Your task to perform on an android device: Show me recent news Image 0: 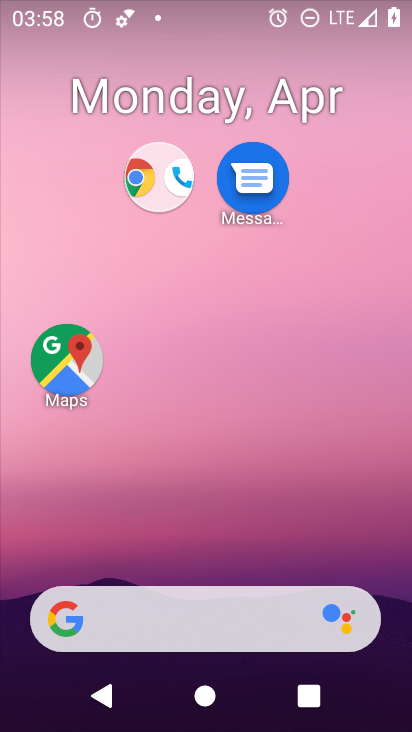
Step 0: drag from (312, 543) to (280, 1)
Your task to perform on an android device: Show me recent news Image 1: 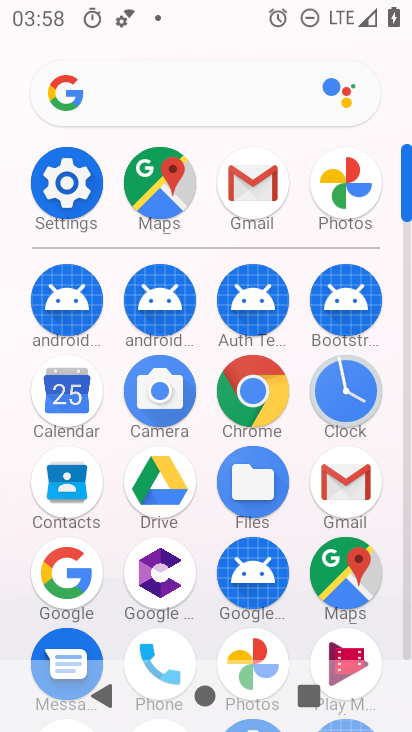
Step 1: click (261, 401)
Your task to perform on an android device: Show me recent news Image 2: 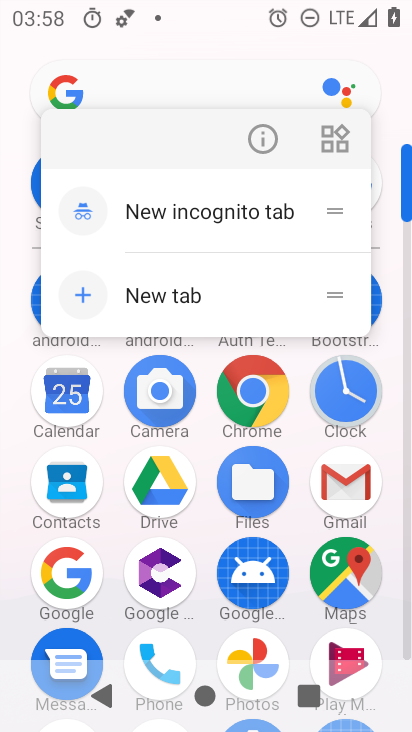
Step 2: click (410, 435)
Your task to perform on an android device: Show me recent news Image 3: 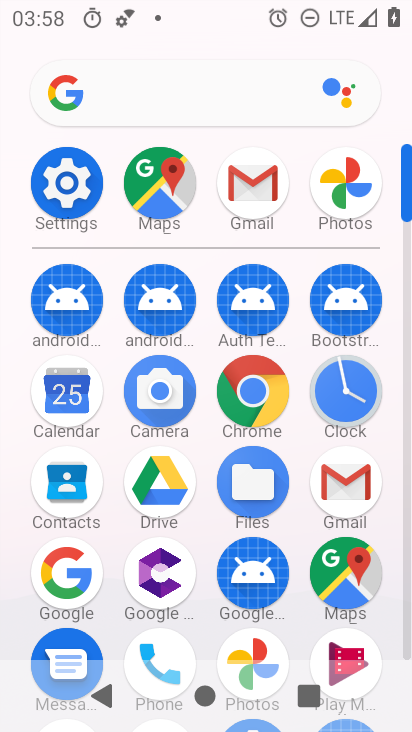
Step 3: click (259, 405)
Your task to perform on an android device: Show me recent news Image 4: 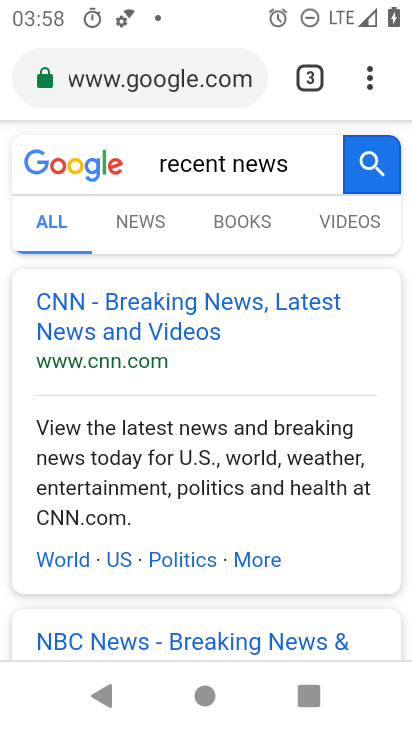
Step 4: click (239, 82)
Your task to perform on an android device: Show me recent news Image 5: 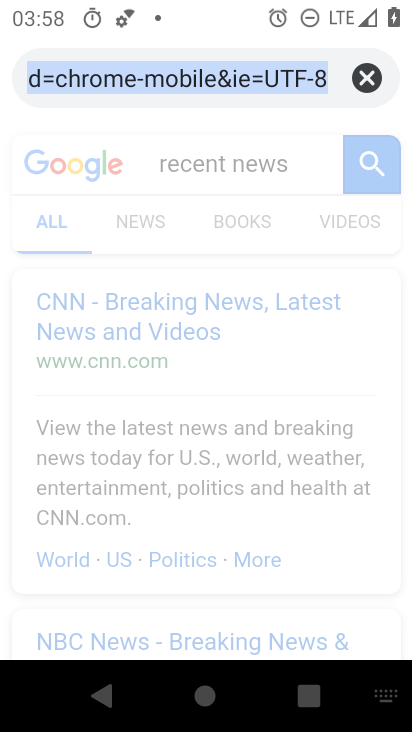
Step 5: click (380, 337)
Your task to perform on an android device: Show me recent news Image 6: 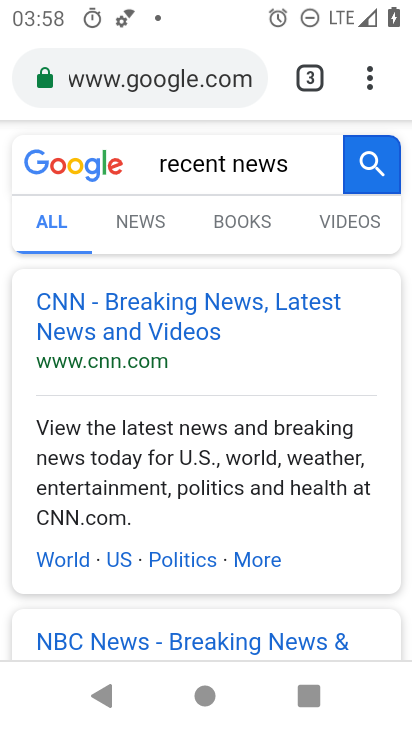
Step 6: task complete